Your task to perform on an android device: read, delete, or share a saved page in the chrome app Image 0: 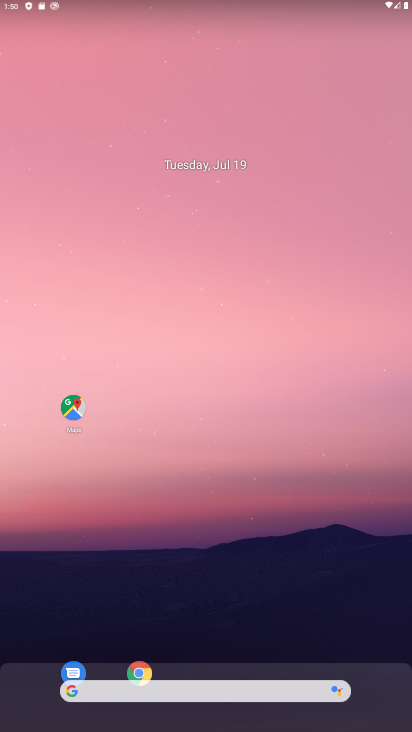
Step 0: click (144, 672)
Your task to perform on an android device: read, delete, or share a saved page in the chrome app Image 1: 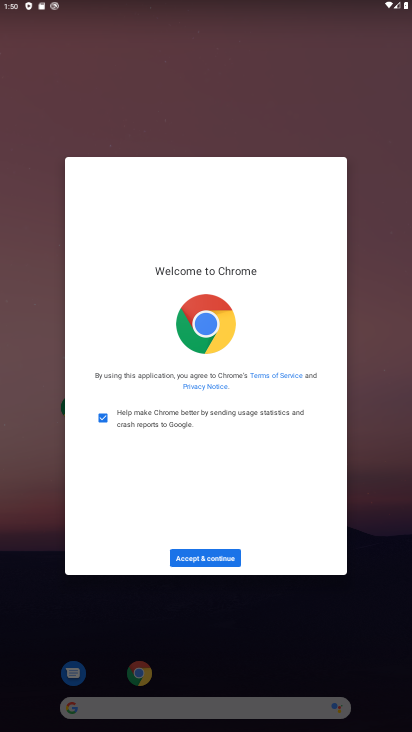
Step 1: click (213, 557)
Your task to perform on an android device: read, delete, or share a saved page in the chrome app Image 2: 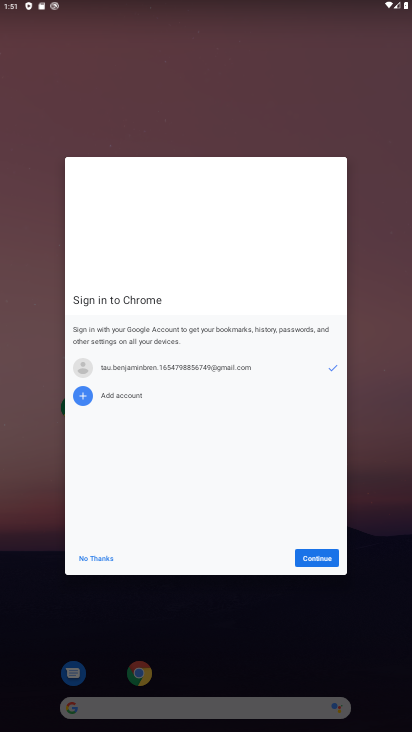
Step 2: click (318, 552)
Your task to perform on an android device: read, delete, or share a saved page in the chrome app Image 3: 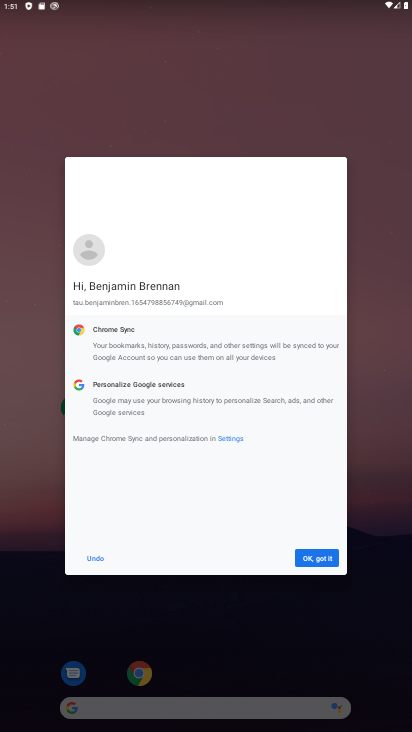
Step 3: click (318, 552)
Your task to perform on an android device: read, delete, or share a saved page in the chrome app Image 4: 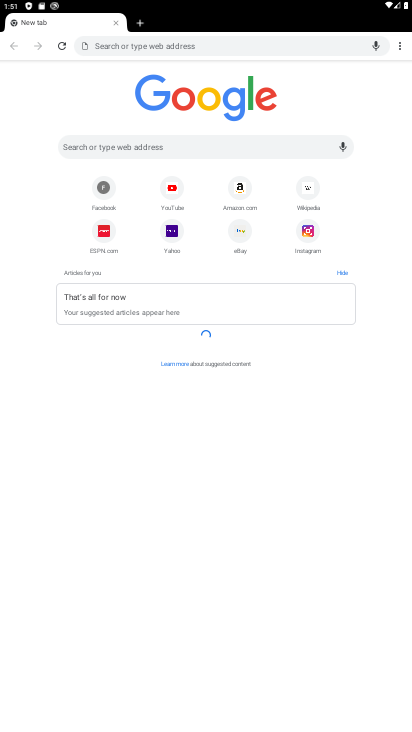
Step 4: click (398, 43)
Your task to perform on an android device: read, delete, or share a saved page in the chrome app Image 5: 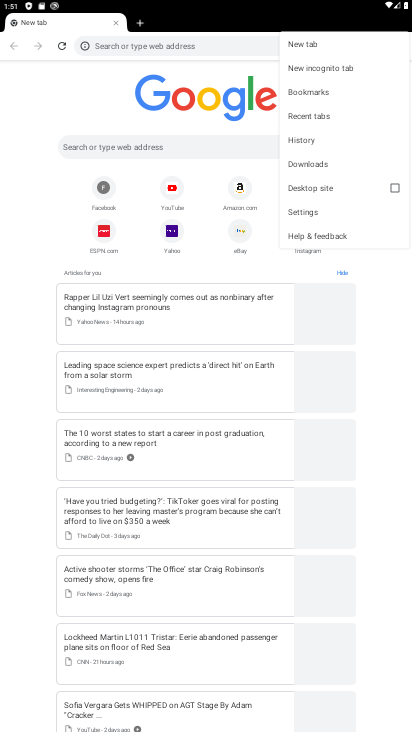
Step 5: click (299, 166)
Your task to perform on an android device: read, delete, or share a saved page in the chrome app Image 6: 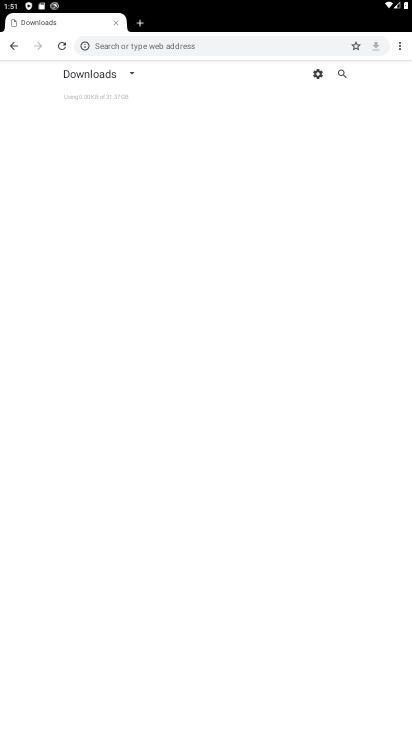
Step 6: click (123, 76)
Your task to perform on an android device: read, delete, or share a saved page in the chrome app Image 7: 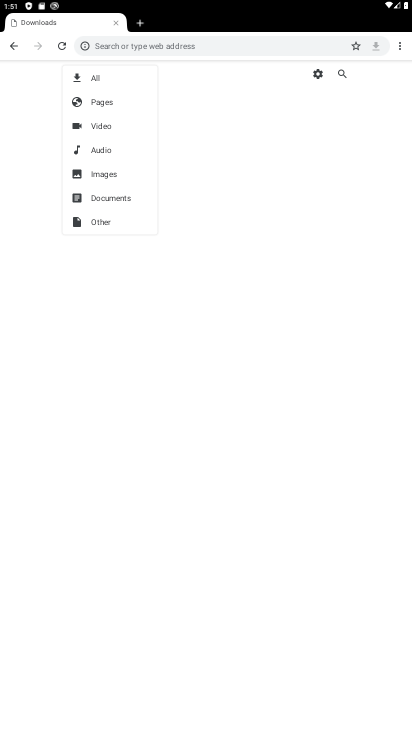
Step 7: click (108, 99)
Your task to perform on an android device: read, delete, or share a saved page in the chrome app Image 8: 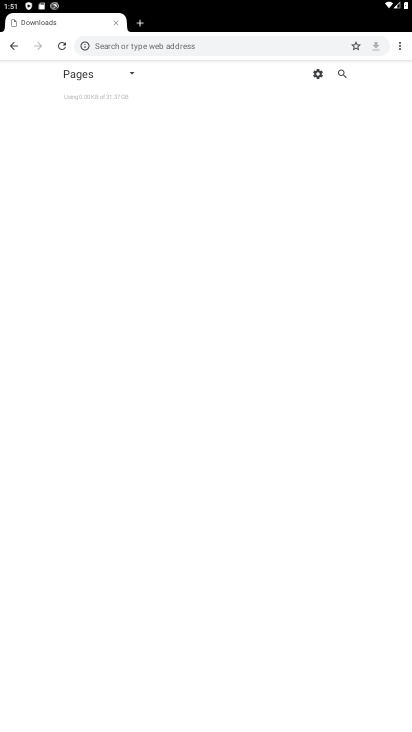
Step 8: task complete